Your task to perform on an android device: Open calendar and show me the second week of next month Image 0: 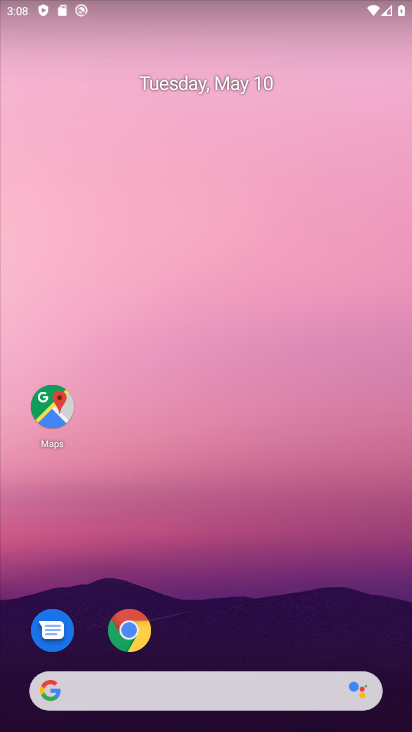
Step 0: click (211, 90)
Your task to perform on an android device: Open calendar and show me the second week of next month Image 1: 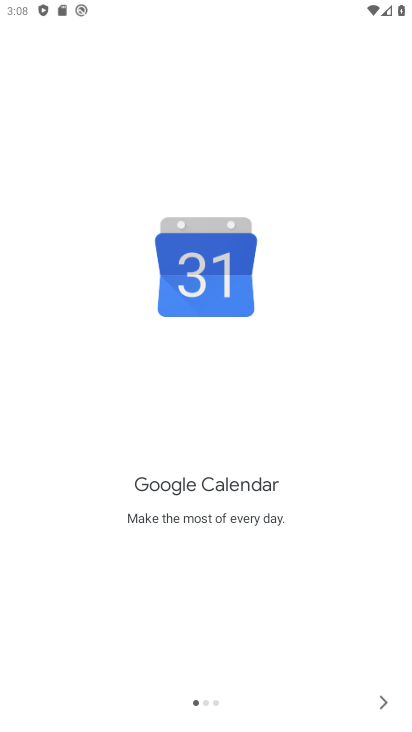
Step 1: click (398, 687)
Your task to perform on an android device: Open calendar and show me the second week of next month Image 2: 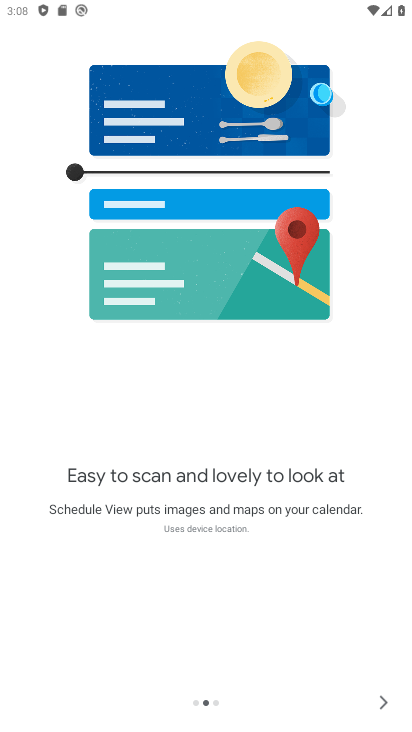
Step 2: click (398, 687)
Your task to perform on an android device: Open calendar and show me the second week of next month Image 3: 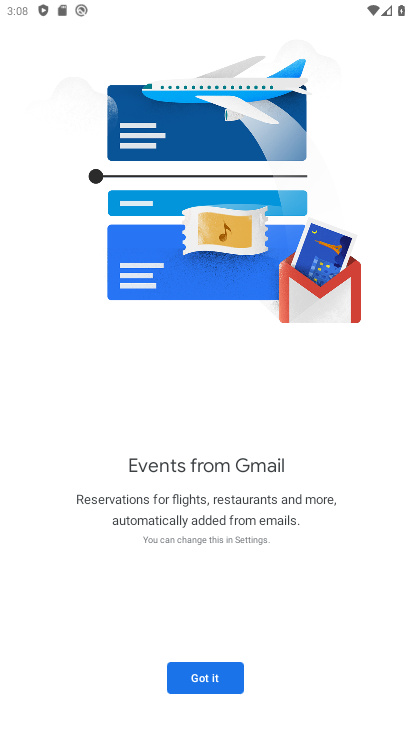
Step 3: click (398, 687)
Your task to perform on an android device: Open calendar and show me the second week of next month Image 4: 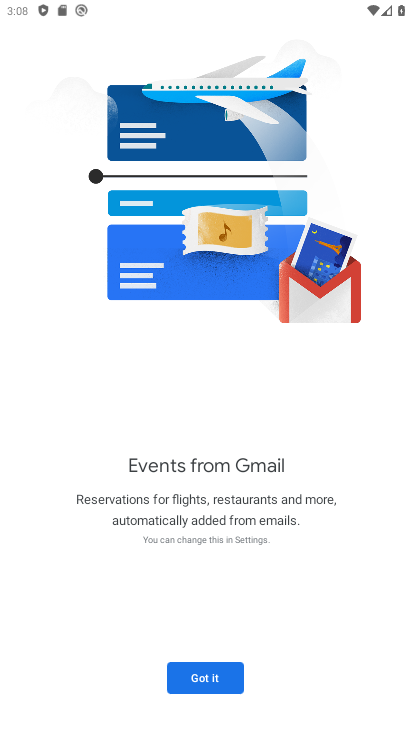
Step 4: click (206, 668)
Your task to perform on an android device: Open calendar and show me the second week of next month Image 5: 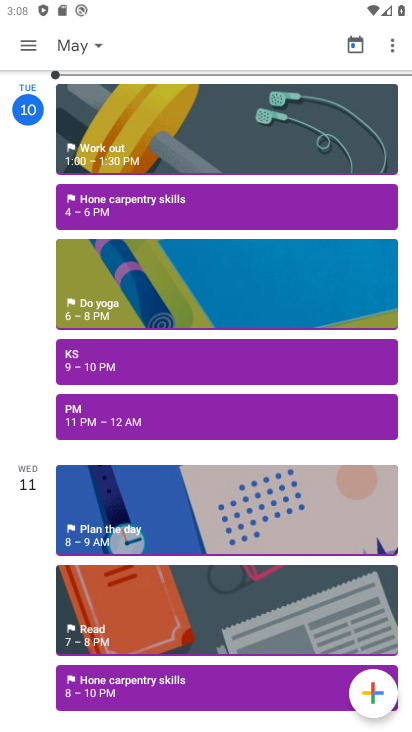
Step 5: click (90, 55)
Your task to perform on an android device: Open calendar and show me the second week of next month Image 6: 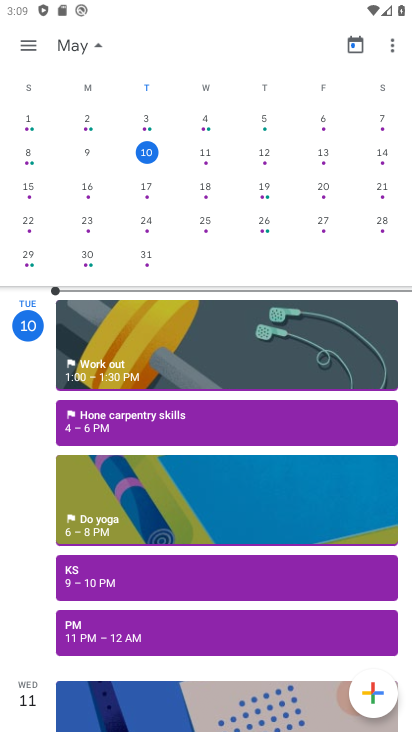
Step 6: drag from (356, 237) to (0, 316)
Your task to perform on an android device: Open calendar and show me the second week of next month Image 7: 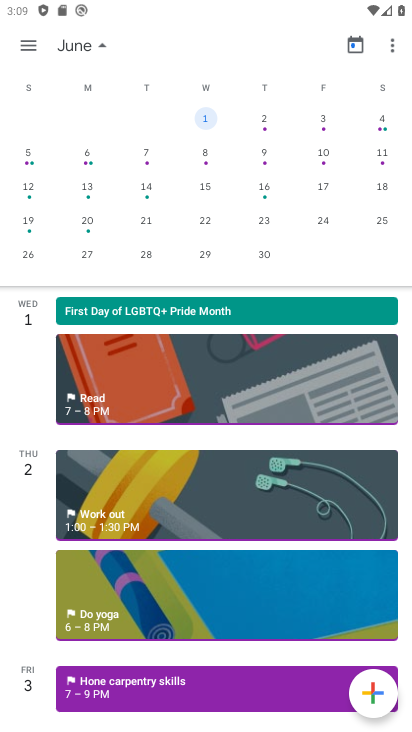
Step 7: click (201, 163)
Your task to perform on an android device: Open calendar and show me the second week of next month Image 8: 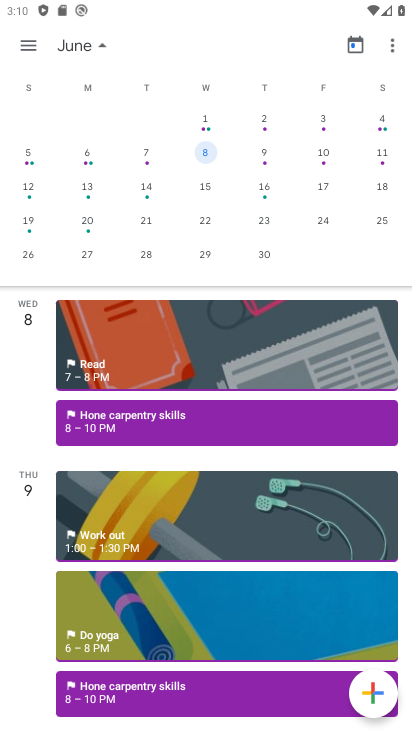
Step 8: task complete